Your task to perform on an android device: Is it going to rain this weekend? Image 0: 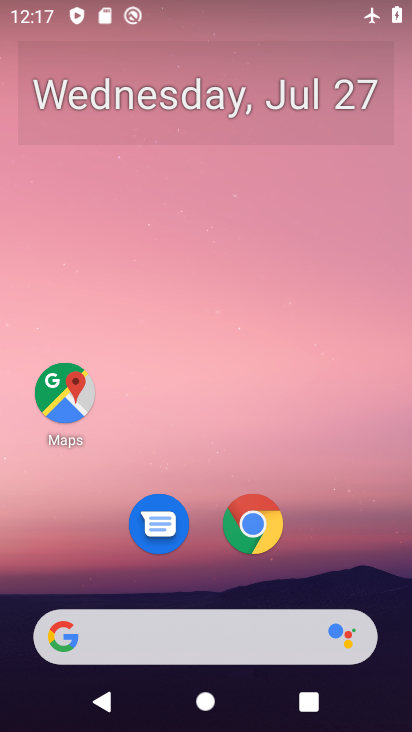
Step 0: drag from (331, 525) to (322, 113)
Your task to perform on an android device: Is it going to rain this weekend? Image 1: 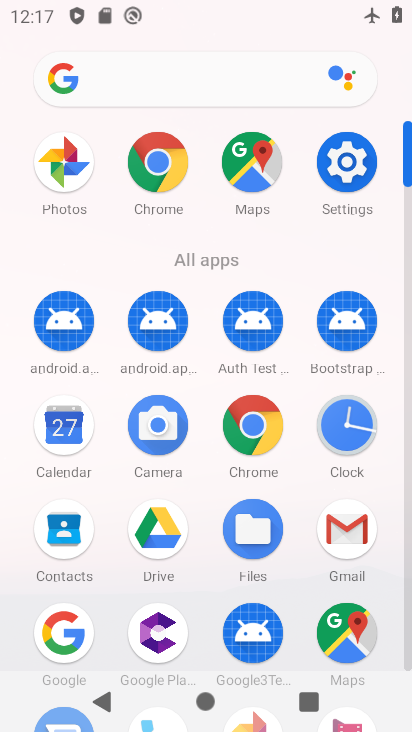
Step 1: press back button
Your task to perform on an android device: Is it going to rain this weekend? Image 2: 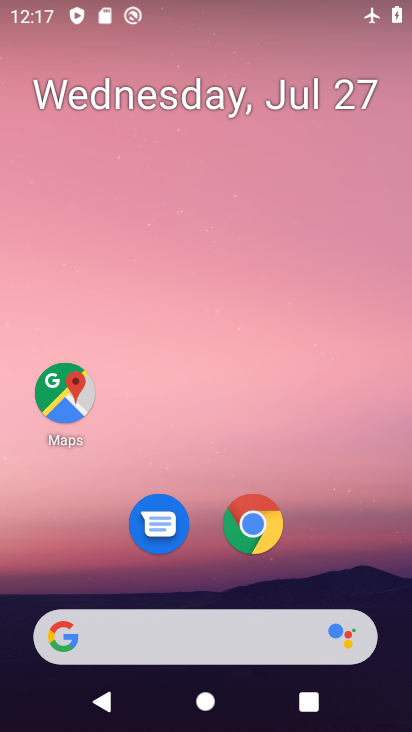
Step 2: click (238, 648)
Your task to perform on an android device: Is it going to rain this weekend? Image 3: 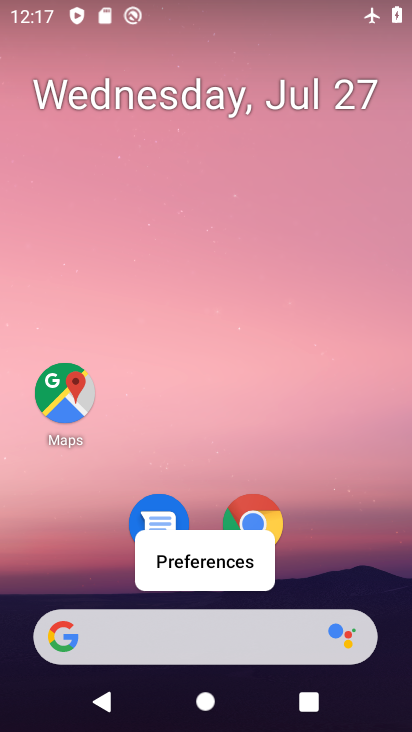
Step 3: click (213, 649)
Your task to perform on an android device: Is it going to rain this weekend? Image 4: 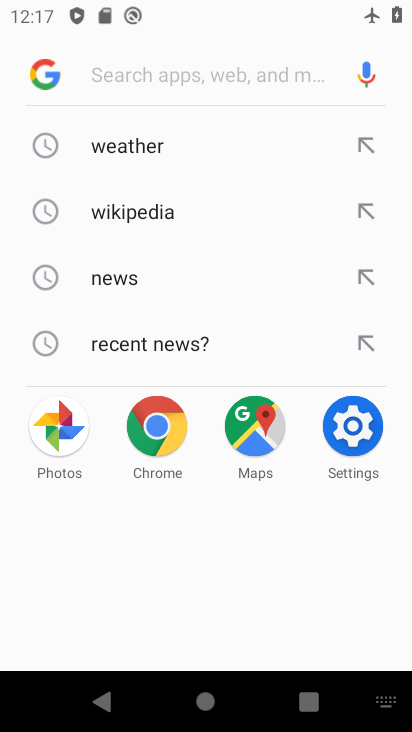
Step 4: click (136, 143)
Your task to perform on an android device: Is it going to rain this weekend? Image 5: 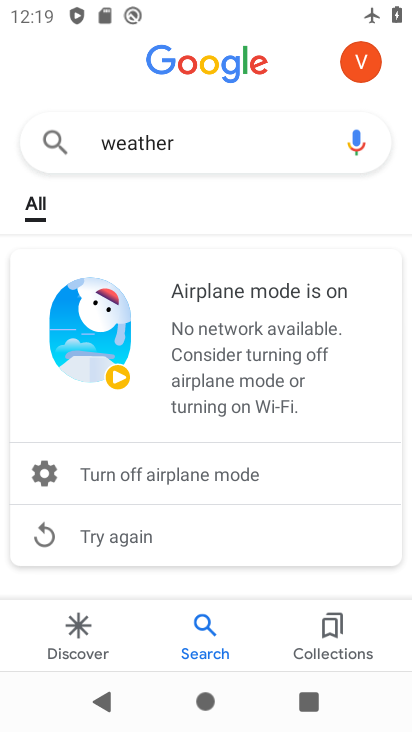
Step 5: task complete